Your task to perform on an android device: Toggle the flashlight Image 0: 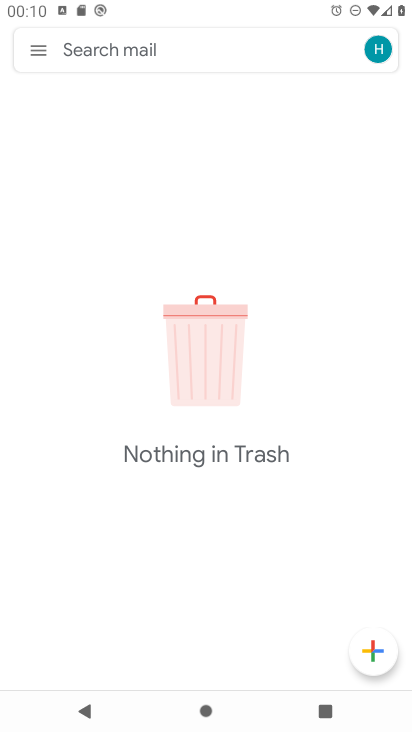
Step 0: press home button
Your task to perform on an android device: Toggle the flashlight Image 1: 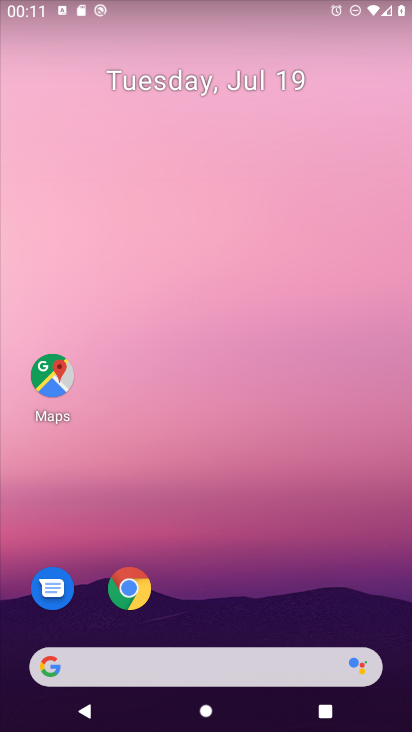
Step 1: drag from (226, 12) to (219, 432)
Your task to perform on an android device: Toggle the flashlight Image 2: 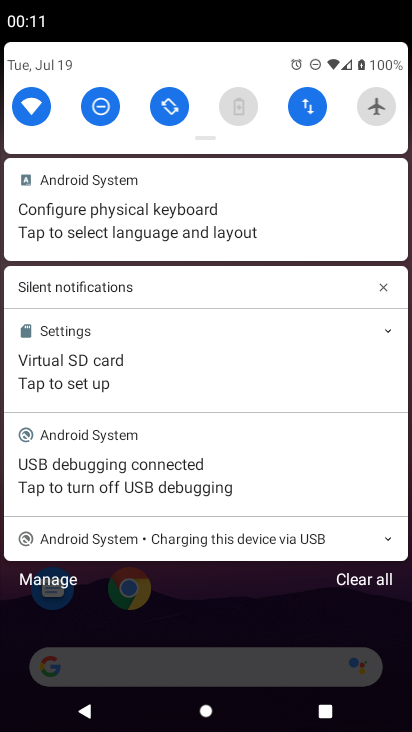
Step 2: drag from (209, 134) to (226, 506)
Your task to perform on an android device: Toggle the flashlight Image 3: 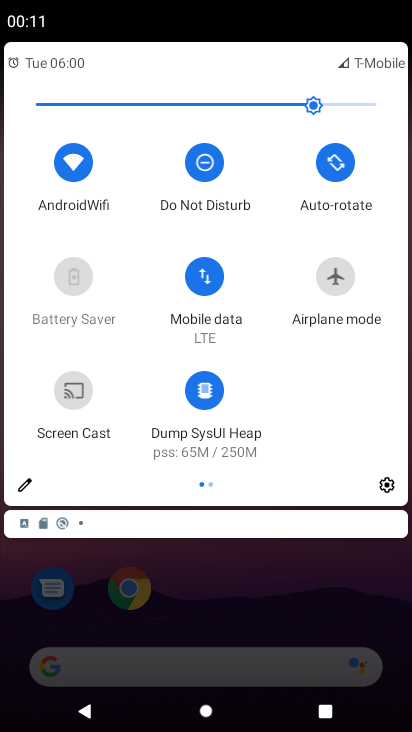
Step 3: click (23, 481)
Your task to perform on an android device: Toggle the flashlight Image 4: 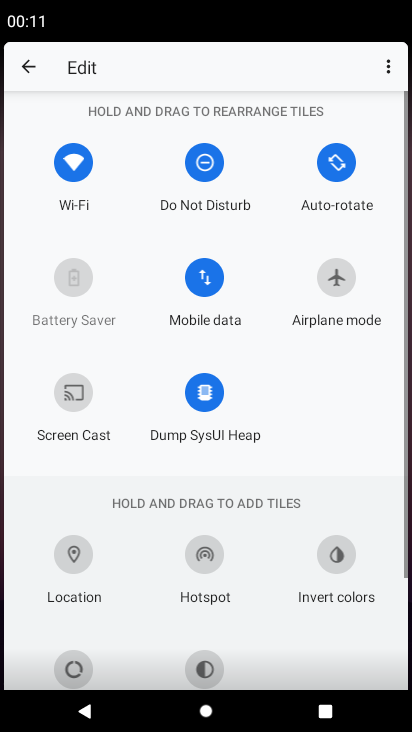
Step 4: task complete